Your task to perform on an android device: toggle location history Image 0: 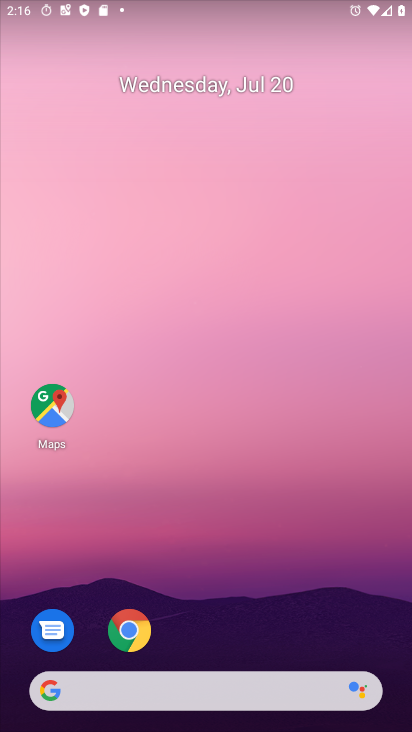
Step 0: click (43, 409)
Your task to perform on an android device: toggle location history Image 1: 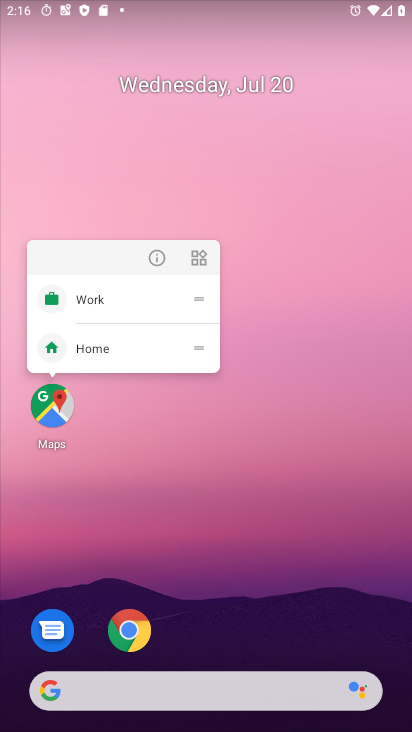
Step 1: click (43, 410)
Your task to perform on an android device: toggle location history Image 2: 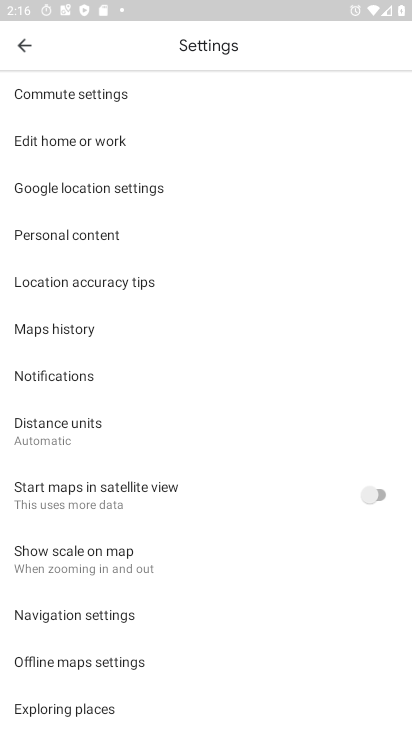
Step 2: click (28, 42)
Your task to perform on an android device: toggle location history Image 3: 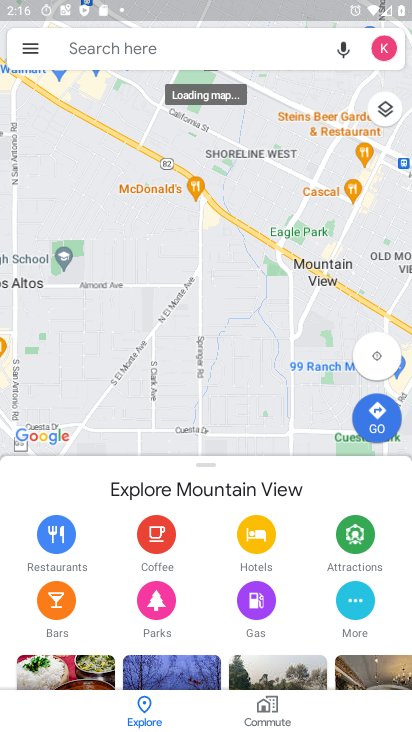
Step 3: click (27, 43)
Your task to perform on an android device: toggle location history Image 4: 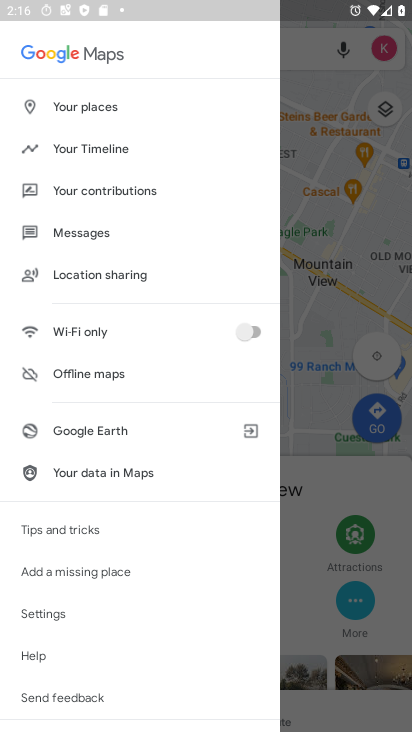
Step 4: click (112, 147)
Your task to perform on an android device: toggle location history Image 5: 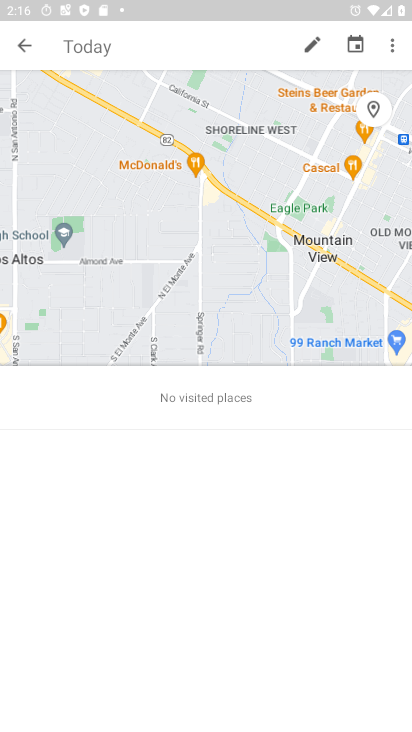
Step 5: click (393, 44)
Your task to perform on an android device: toggle location history Image 6: 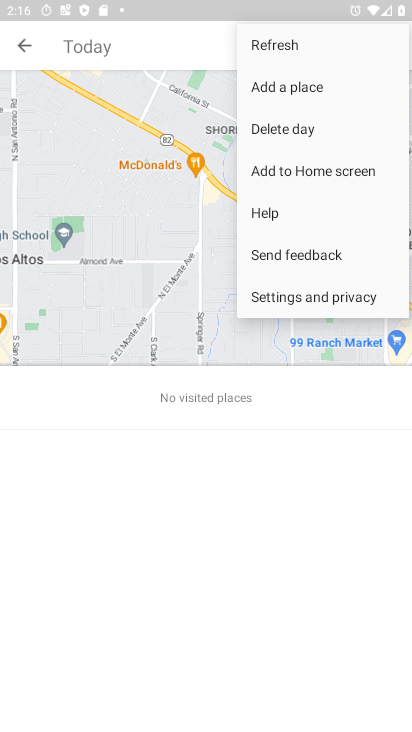
Step 6: click (297, 301)
Your task to perform on an android device: toggle location history Image 7: 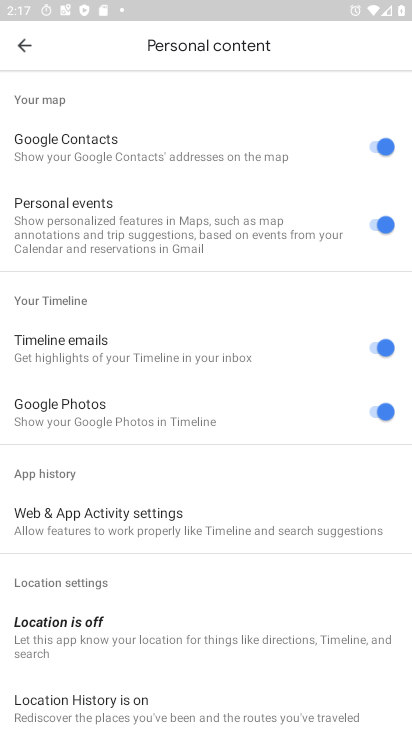
Step 7: drag from (184, 563) to (275, 210)
Your task to perform on an android device: toggle location history Image 8: 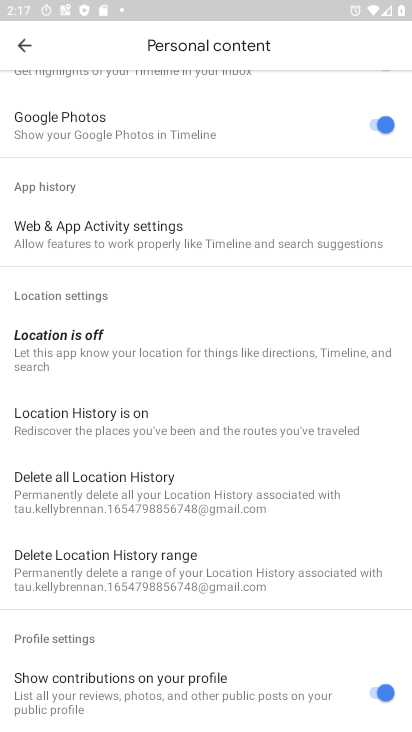
Step 8: click (129, 418)
Your task to perform on an android device: toggle location history Image 9: 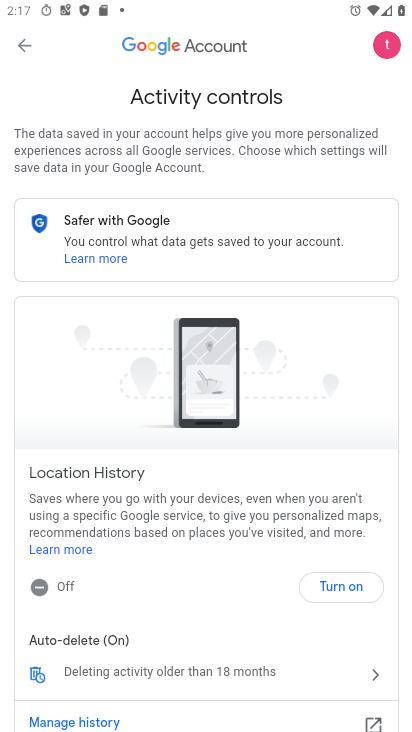
Step 9: click (347, 587)
Your task to perform on an android device: toggle location history Image 10: 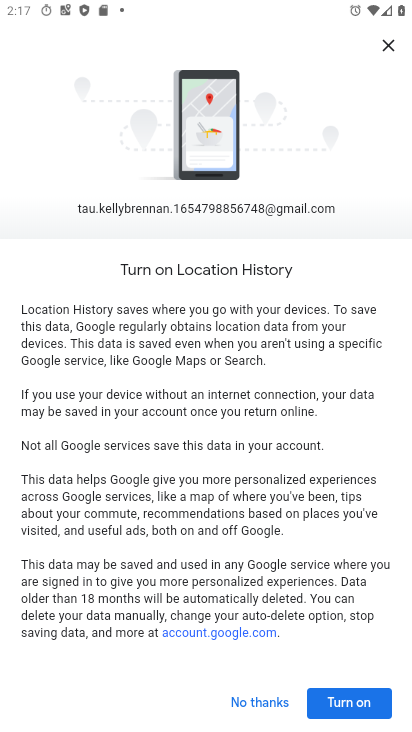
Step 10: click (360, 705)
Your task to perform on an android device: toggle location history Image 11: 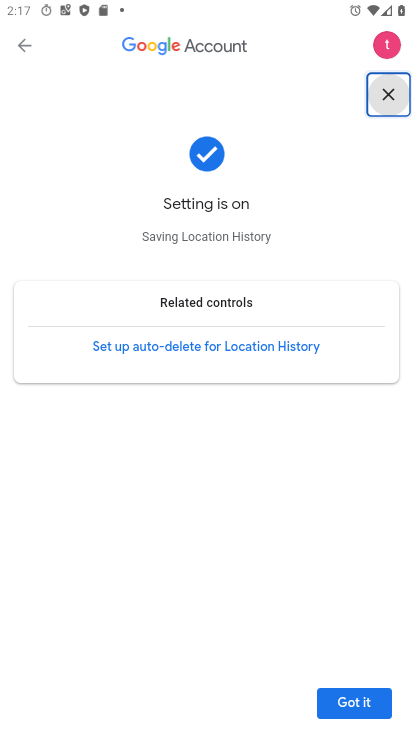
Step 11: click (344, 703)
Your task to perform on an android device: toggle location history Image 12: 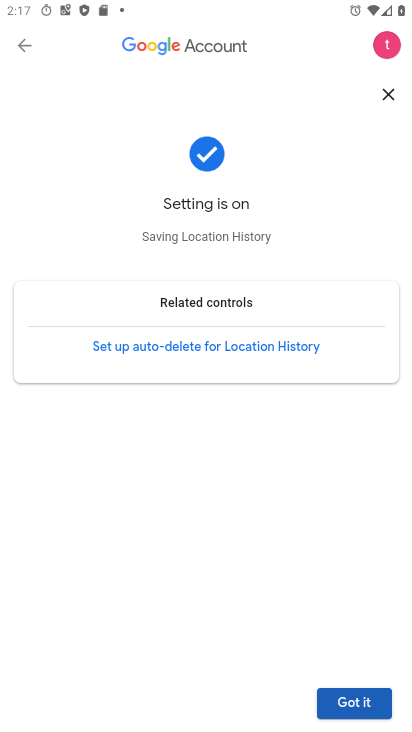
Step 12: click (344, 701)
Your task to perform on an android device: toggle location history Image 13: 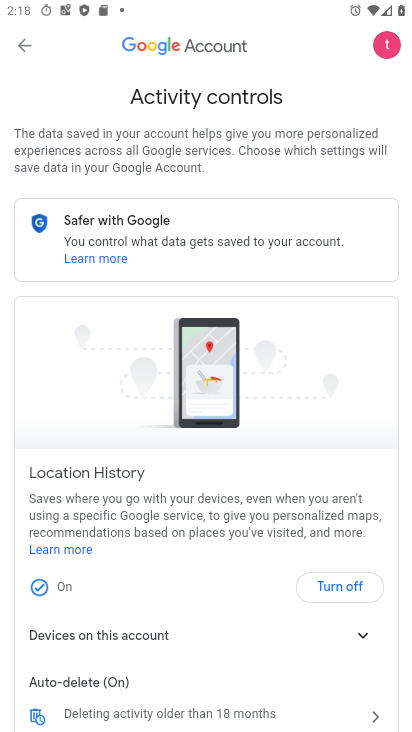
Step 13: task complete